Your task to perform on an android device: Go to eBay Image 0: 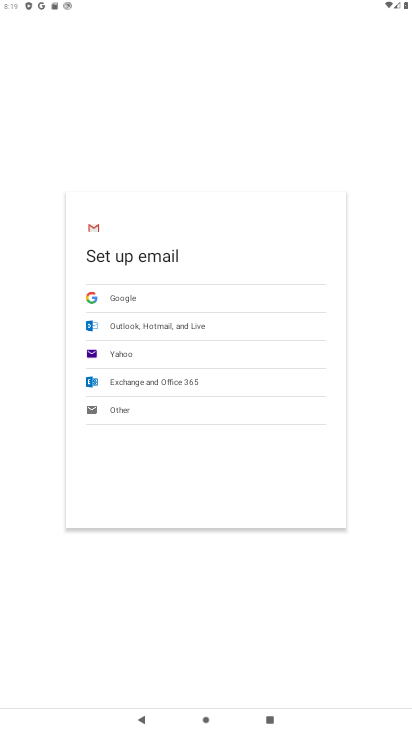
Step 0: press home button
Your task to perform on an android device: Go to eBay Image 1: 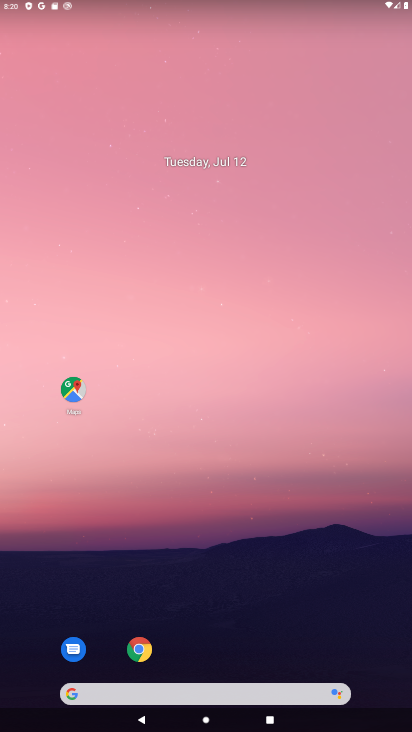
Step 1: click (143, 664)
Your task to perform on an android device: Go to eBay Image 2: 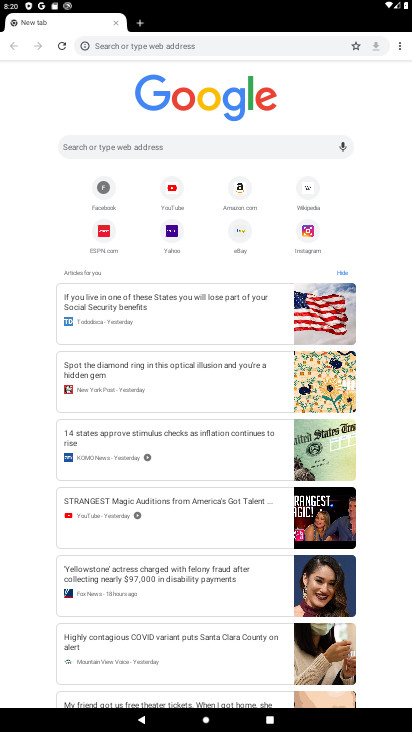
Step 2: click (235, 236)
Your task to perform on an android device: Go to eBay Image 3: 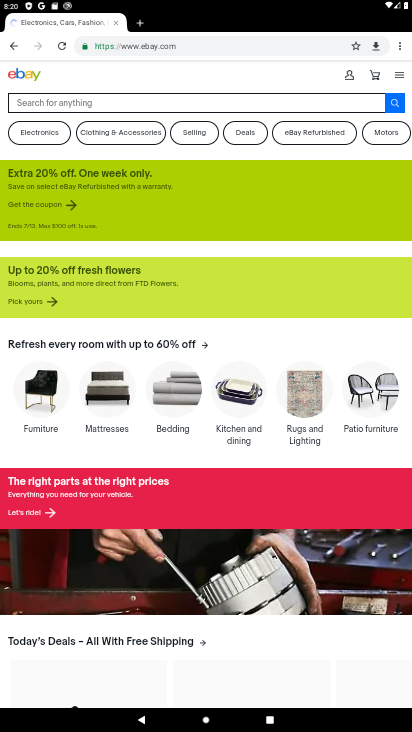
Step 3: task complete